Your task to perform on an android device: check android version Image 0: 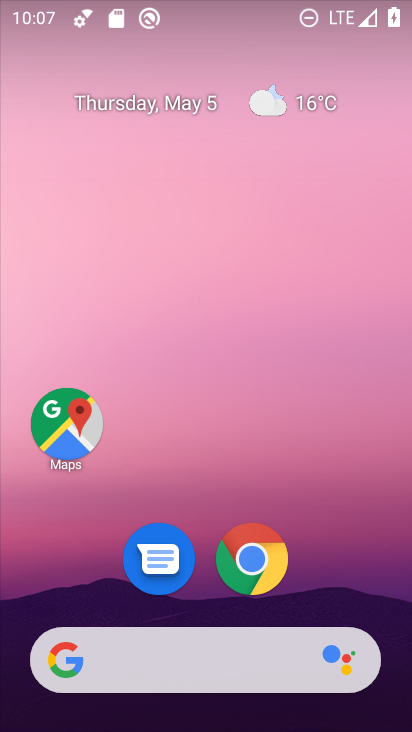
Step 0: drag from (389, 636) to (345, 72)
Your task to perform on an android device: check android version Image 1: 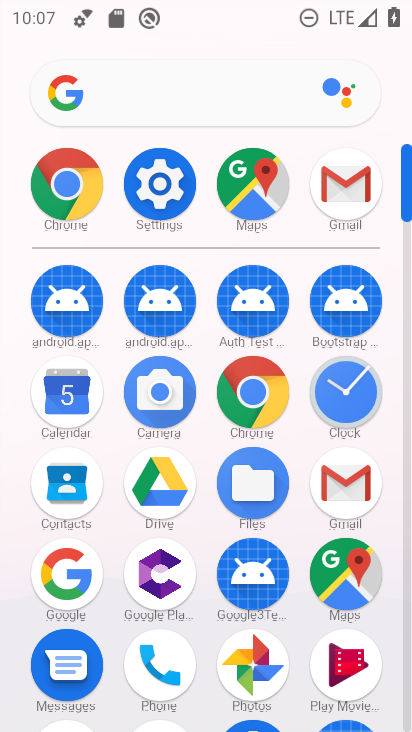
Step 1: click (165, 206)
Your task to perform on an android device: check android version Image 2: 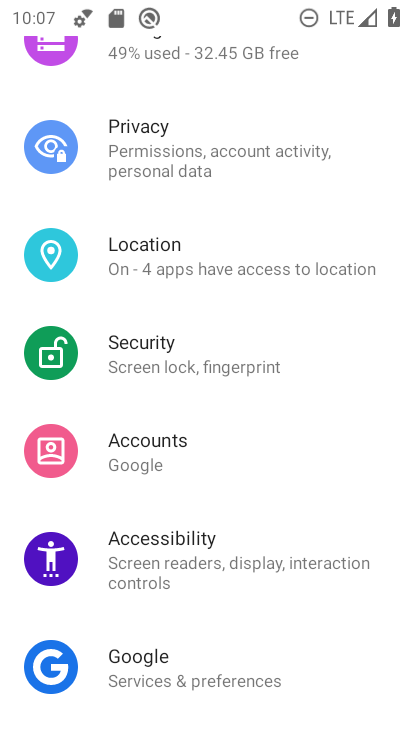
Step 2: drag from (189, 668) to (323, 68)
Your task to perform on an android device: check android version Image 3: 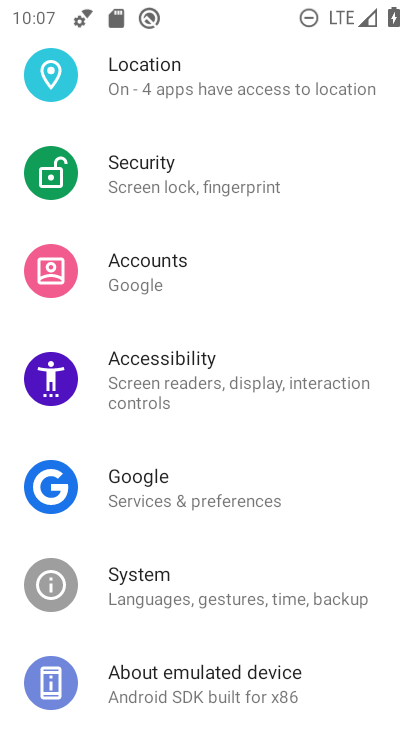
Step 3: drag from (195, 641) to (250, 102)
Your task to perform on an android device: check android version Image 4: 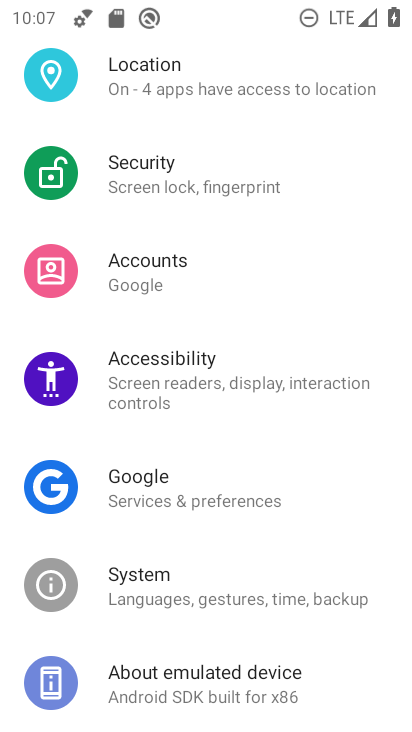
Step 4: click (160, 699)
Your task to perform on an android device: check android version Image 5: 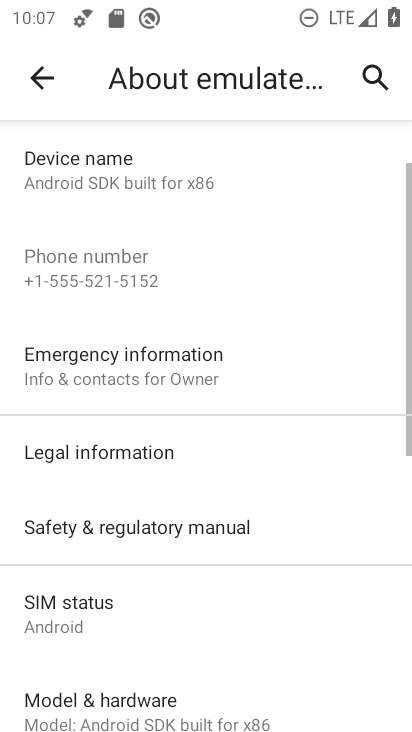
Step 5: drag from (143, 651) to (217, 279)
Your task to perform on an android device: check android version Image 6: 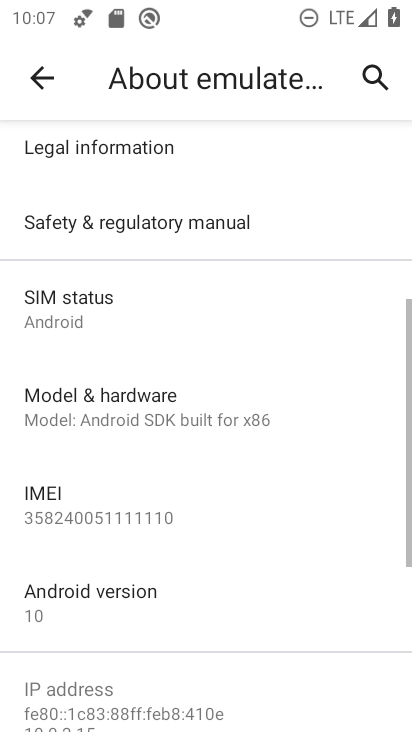
Step 6: click (159, 603)
Your task to perform on an android device: check android version Image 7: 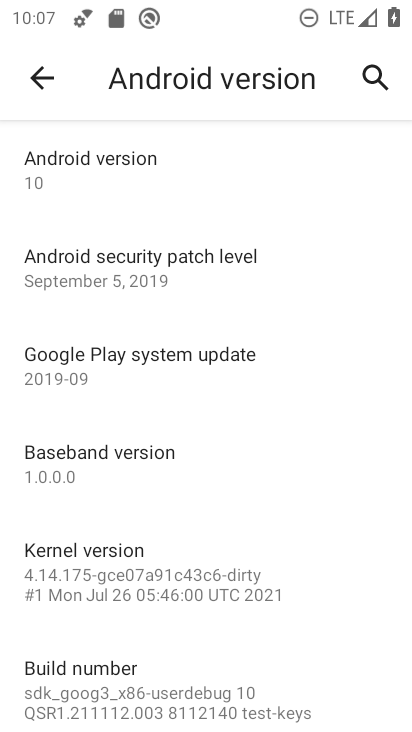
Step 7: click (195, 206)
Your task to perform on an android device: check android version Image 8: 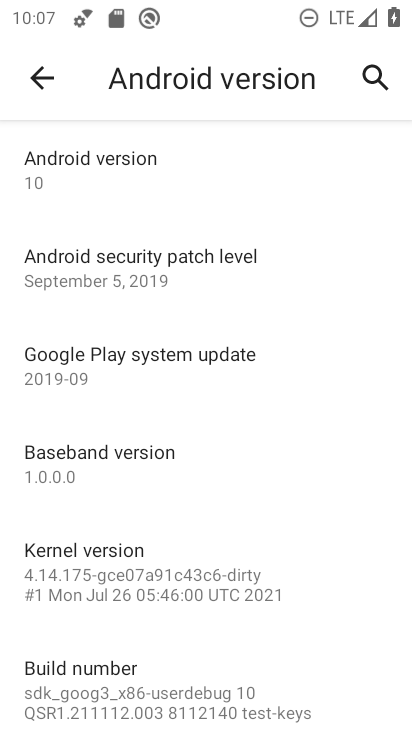
Step 8: task complete